Your task to perform on an android device: How much does a 2 bedroom apartment rent for in Boston? Image 0: 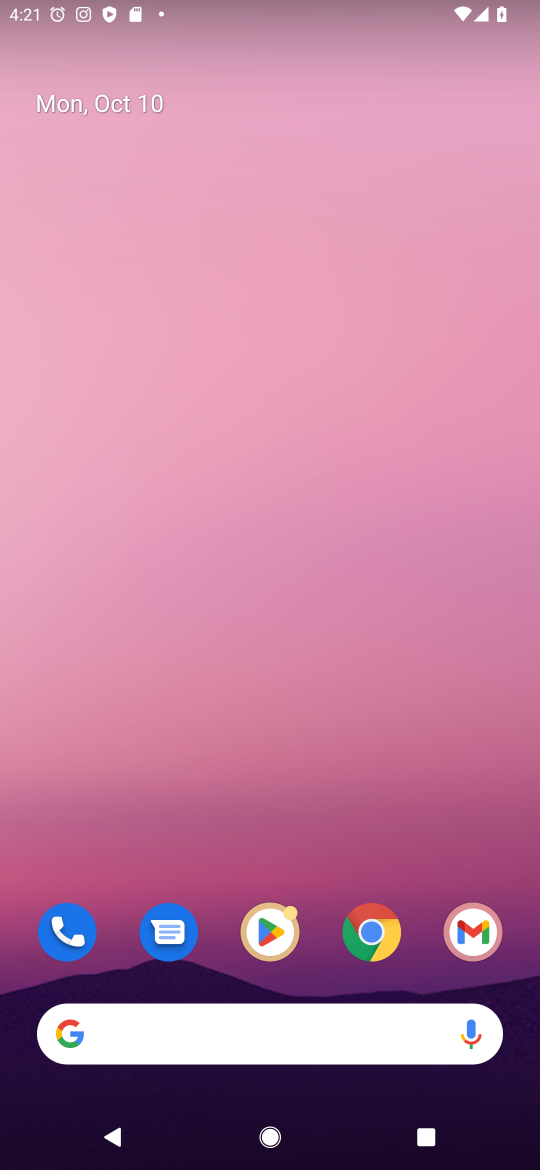
Step 0: press home button
Your task to perform on an android device: How much does a 2 bedroom apartment rent for in Boston? Image 1: 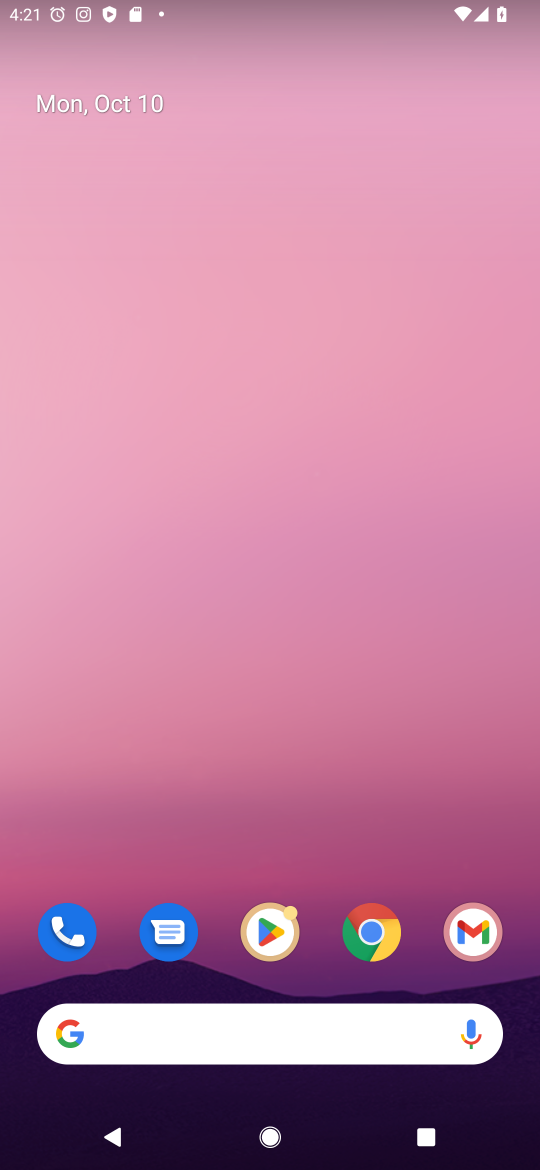
Step 1: click (270, 1041)
Your task to perform on an android device: How much does a 2 bedroom apartment rent for in Boston? Image 2: 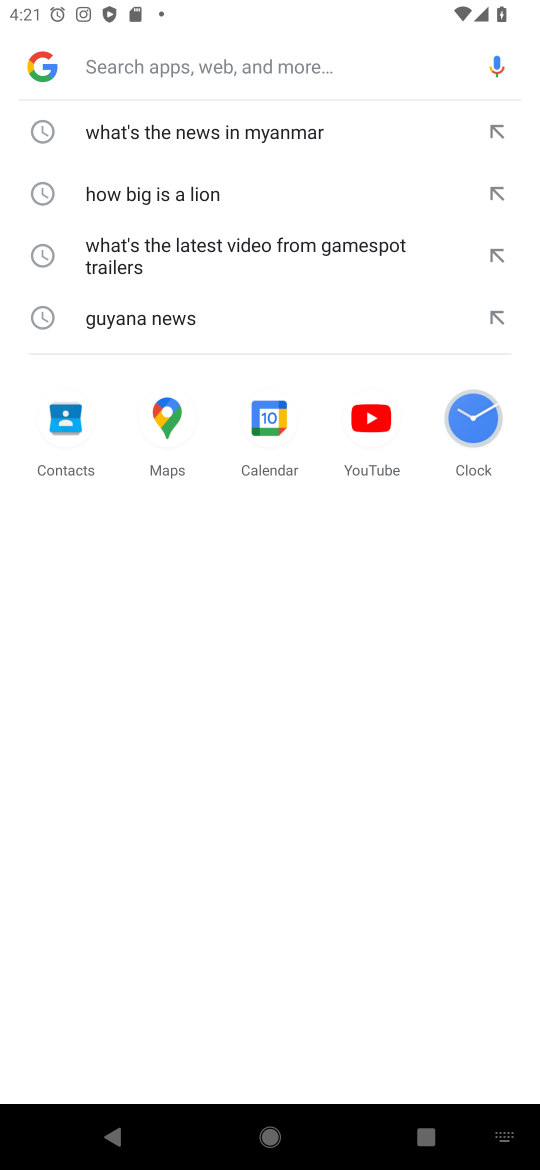
Step 2: type "2 bedroom apartment rent for in Boston"
Your task to perform on an android device: How much does a 2 bedroom apartment rent for in Boston? Image 3: 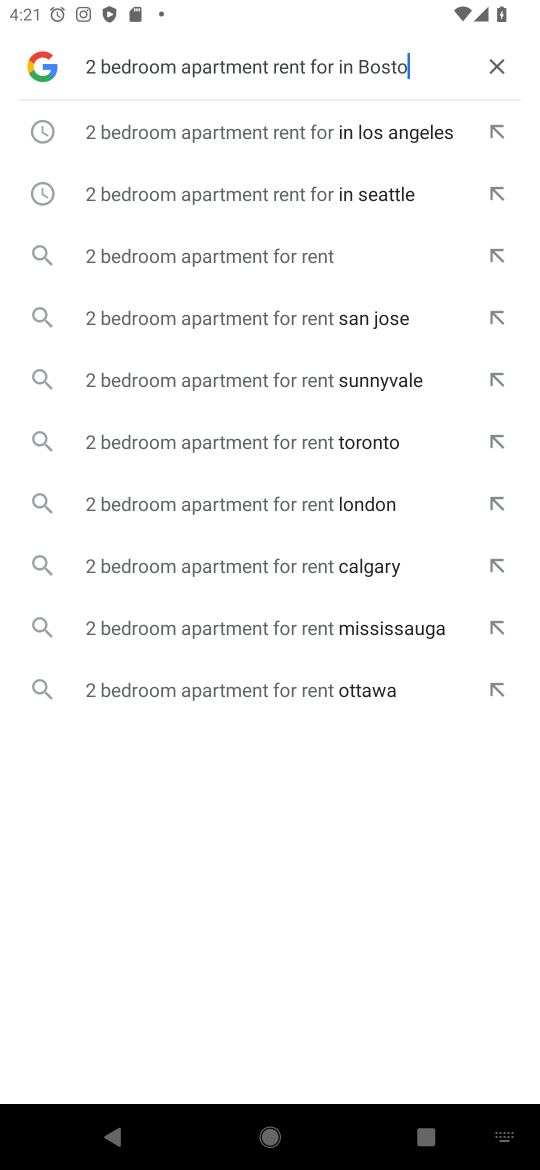
Step 3: press enter
Your task to perform on an android device: How much does a 2 bedroom apartment rent for in Boston? Image 4: 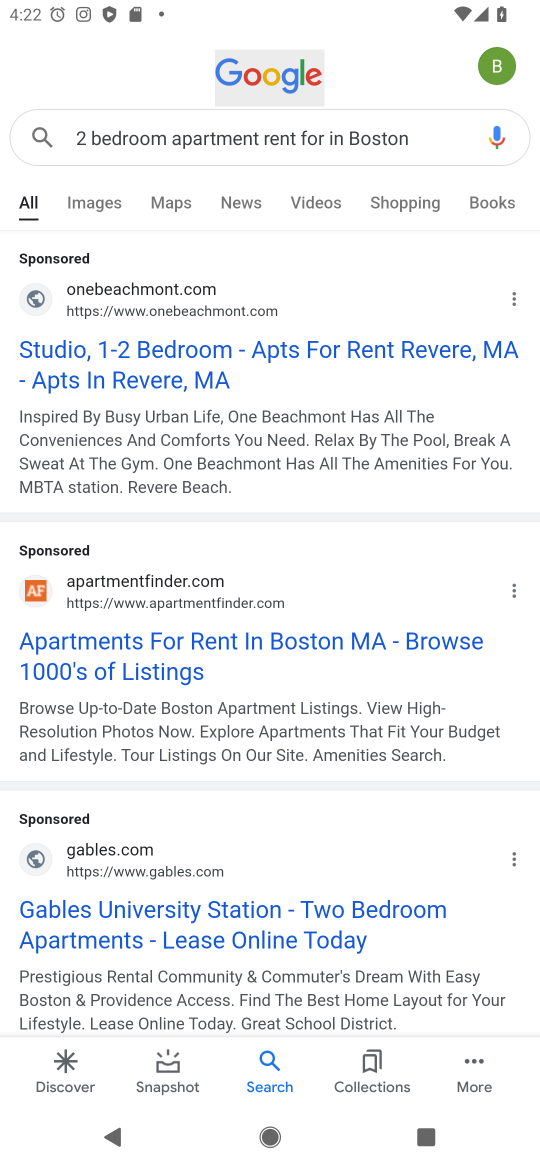
Step 4: click (261, 651)
Your task to perform on an android device: How much does a 2 bedroom apartment rent for in Boston? Image 5: 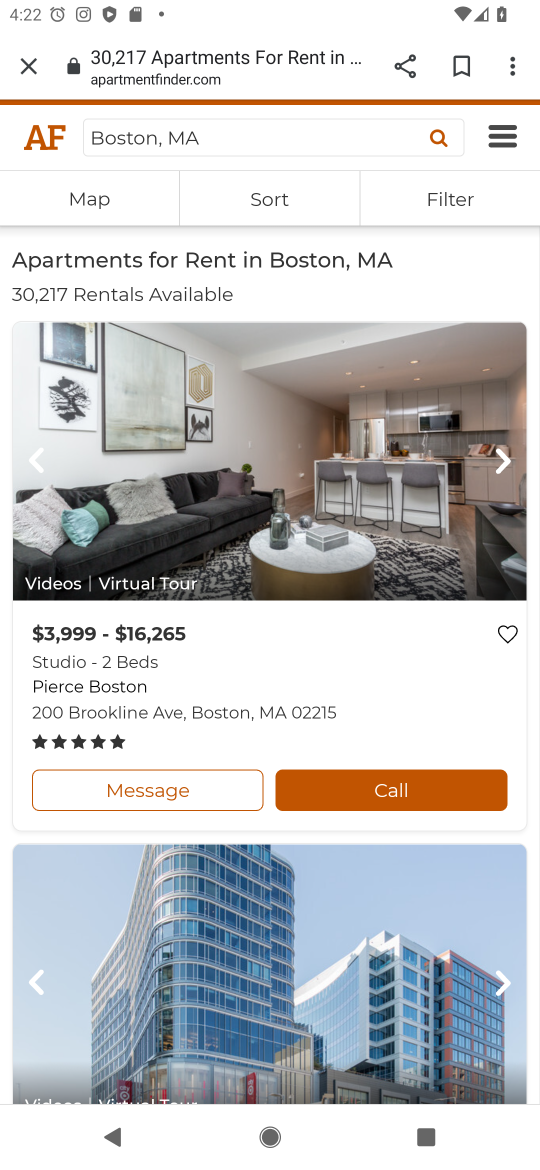
Step 5: task complete